Your task to perform on an android device: open app "Upside-Cash back on gas & food" (install if not already installed), go to login, and select forgot password Image 0: 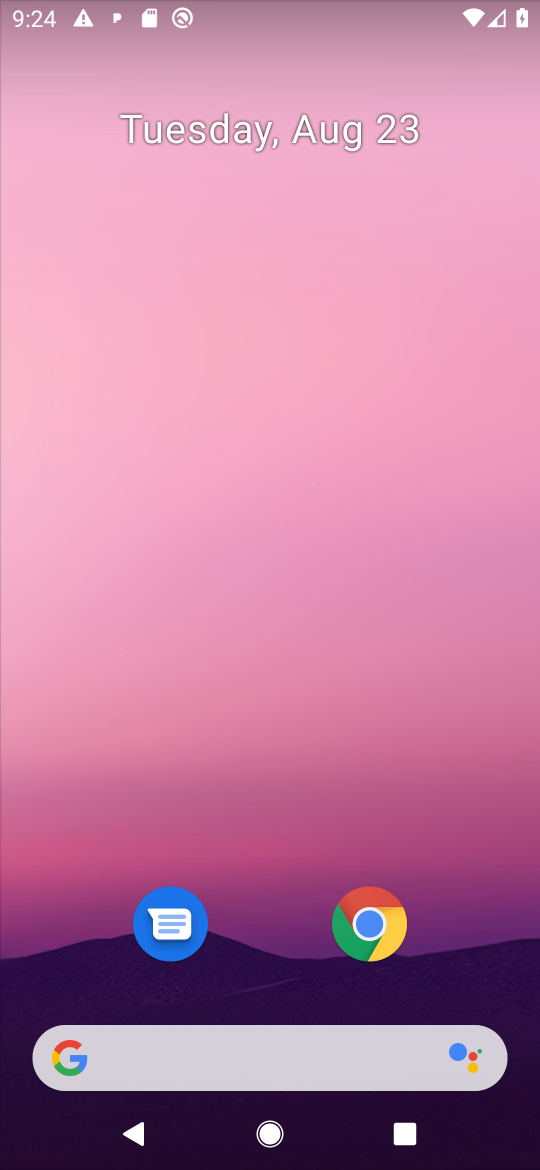
Step 0: press home button
Your task to perform on an android device: open app "Upside-Cash back on gas & food" (install if not already installed), go to login, and select forgot password Image 1: 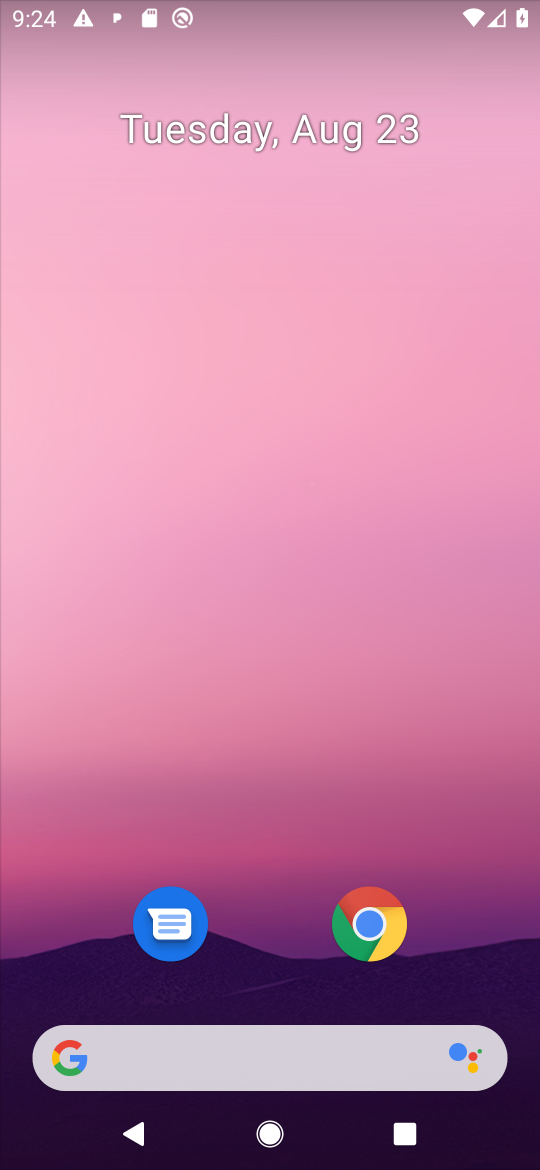
Step 1: drag from (488, 932) to (461, 114)
Your task to perform on an android device: open app "Upside-Cash back on gas & food" (install if not already installed), go to login, and select forgot password Image 2: 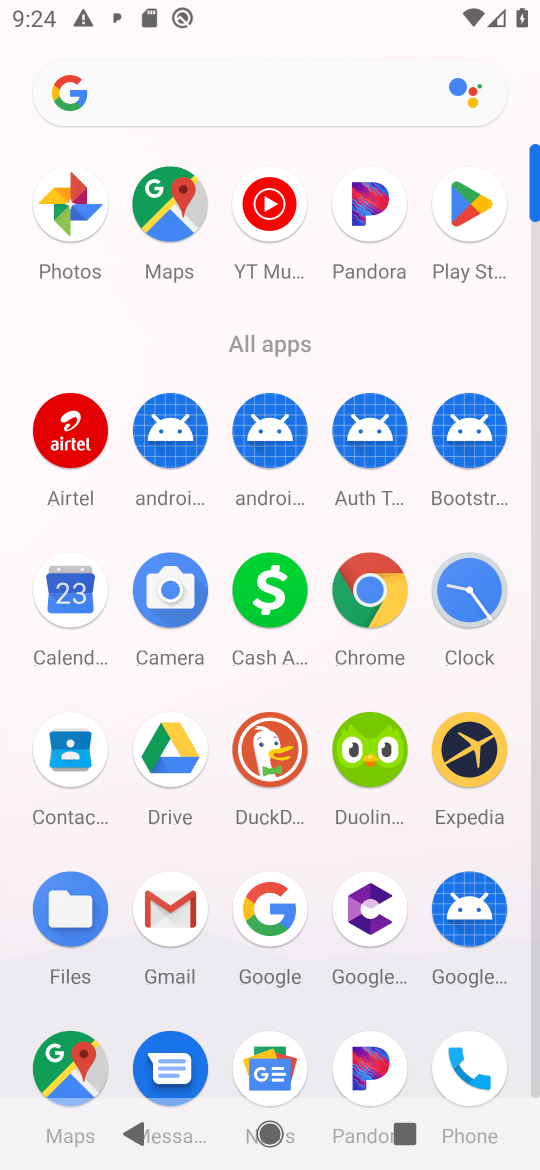
Step 2: click (461, 204)
Your task to perform on an android device: open app "Upside-Cash back on gas & food" (install if not already installed), go to login, and select forgot password Image 3: 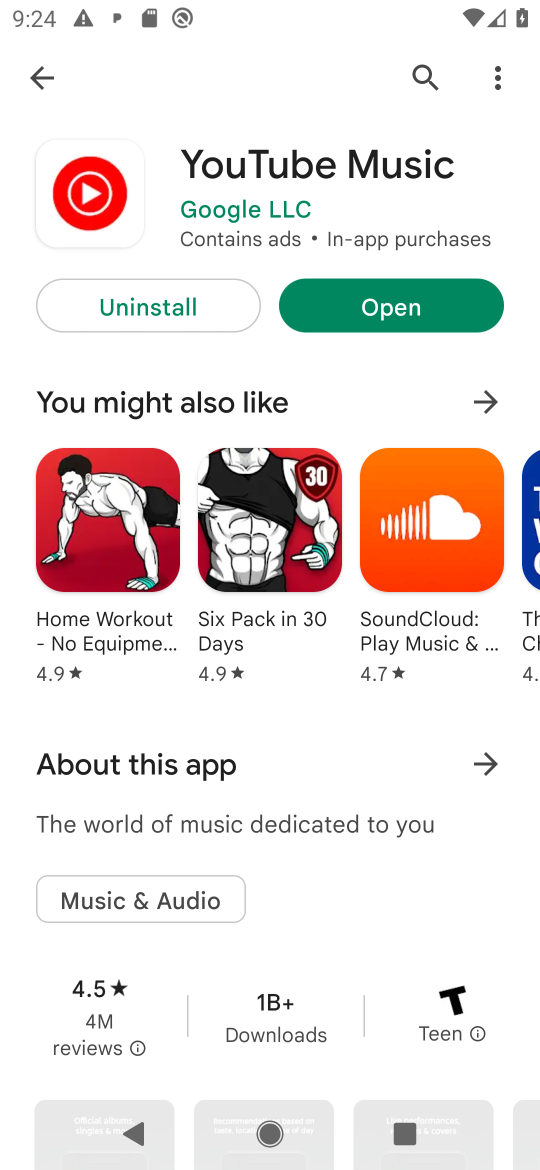
Step 3: press back button
Your task to perform on an android device: open app "Upside-Cash back on gas & food" (install if not already installed), go to login, and select forgot password Image 4: 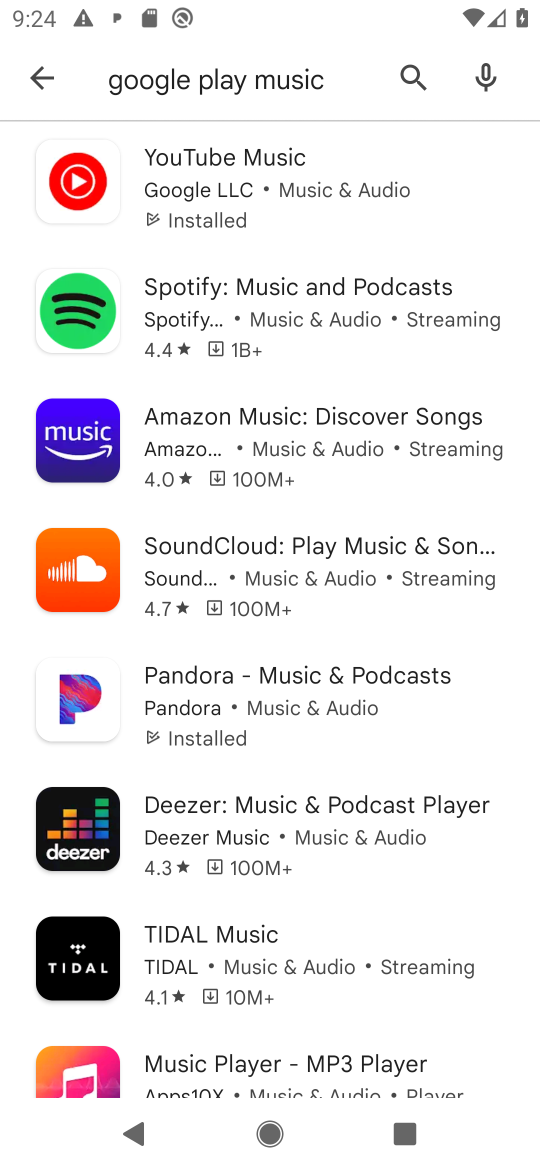
Step 4: press back button
Your task to perform on an android device: open app "Upside-Cash back on gas & food" (install if not already installed), go to login, and select forgot password Image 5: 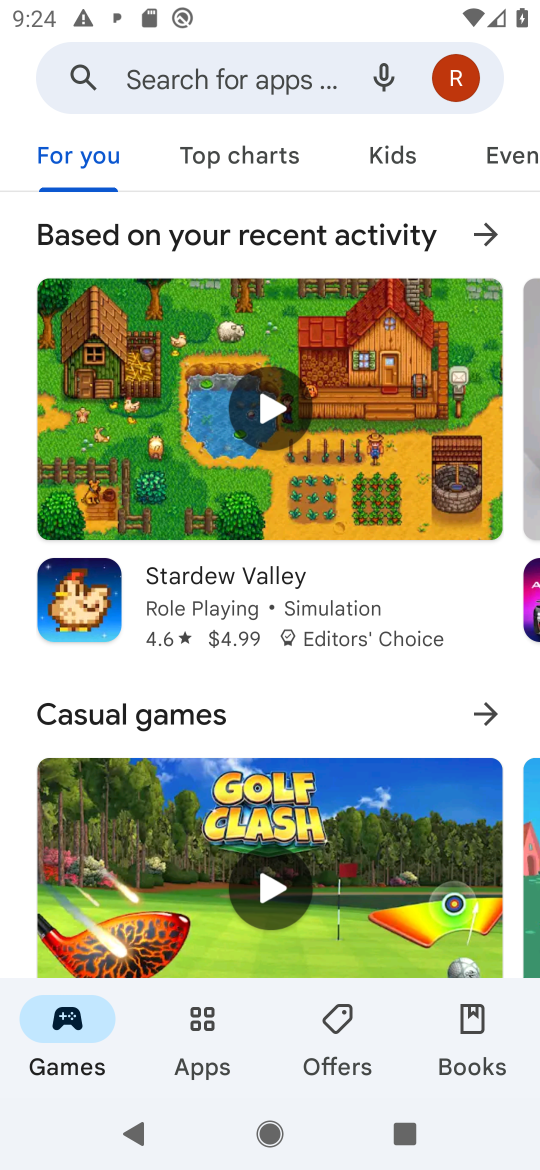
Step 5: click (265, 79)
Your task to perform on an android device: open app "Upside-Cash back on gas & food" (install if not already installed), go to login, and select forgot password Image 6: 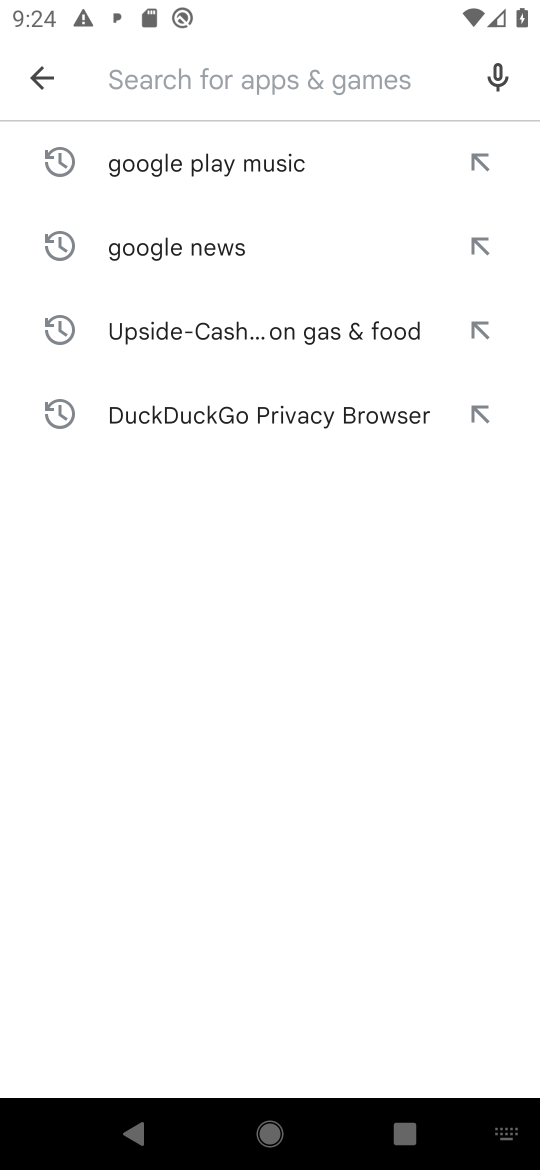
Step 6: type "Upside-Cash back on gas & food"
Your task to perform on an android device: open app "Upside-Cash back on gas & food" (install if not already installed), go to login, and select forgot password Image 7: 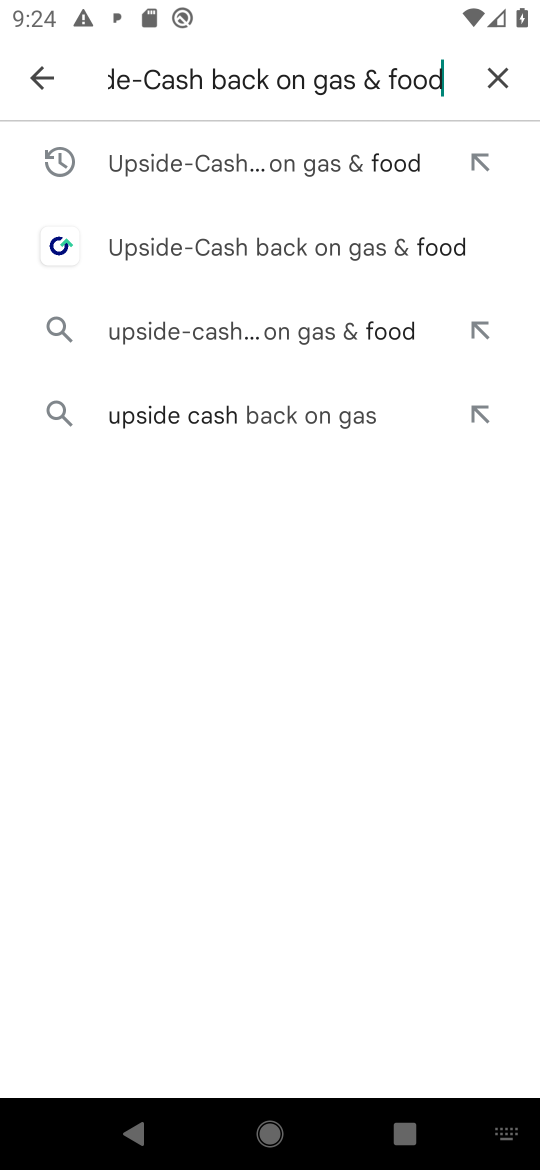
Step 7: press enter
Your task to perform on an android device: open app "Upside-Cash back on gas & food" (install if not already installed), go to login, and select forgot password Image 8: 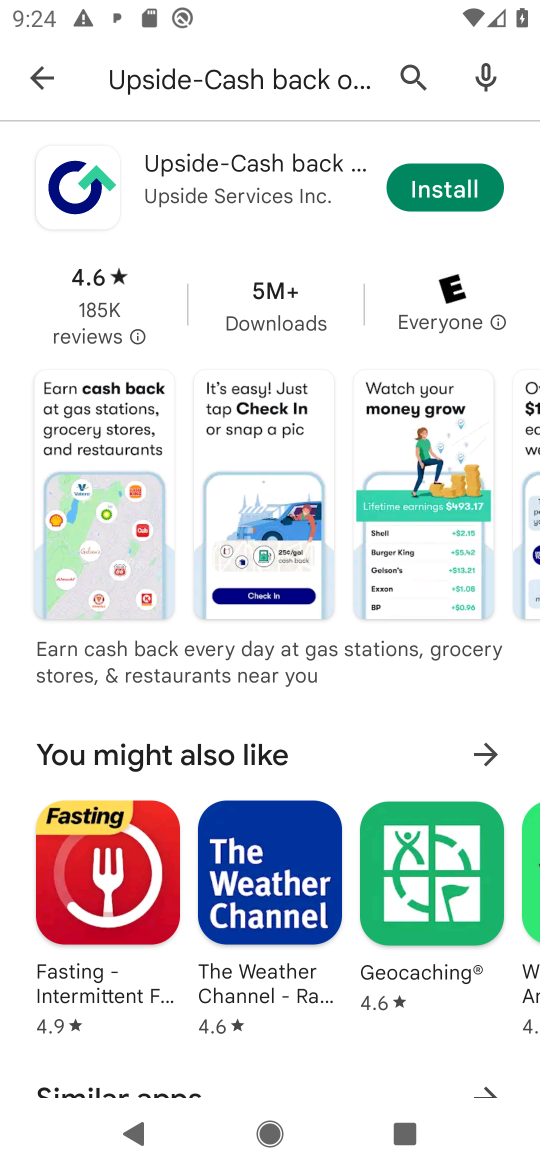
Step 8: click (435, 185)
Your task to perform on an android device: open app "Upside-Cash back on gas & food" (install if not already installed), go to login, and select forgot password Image 9: 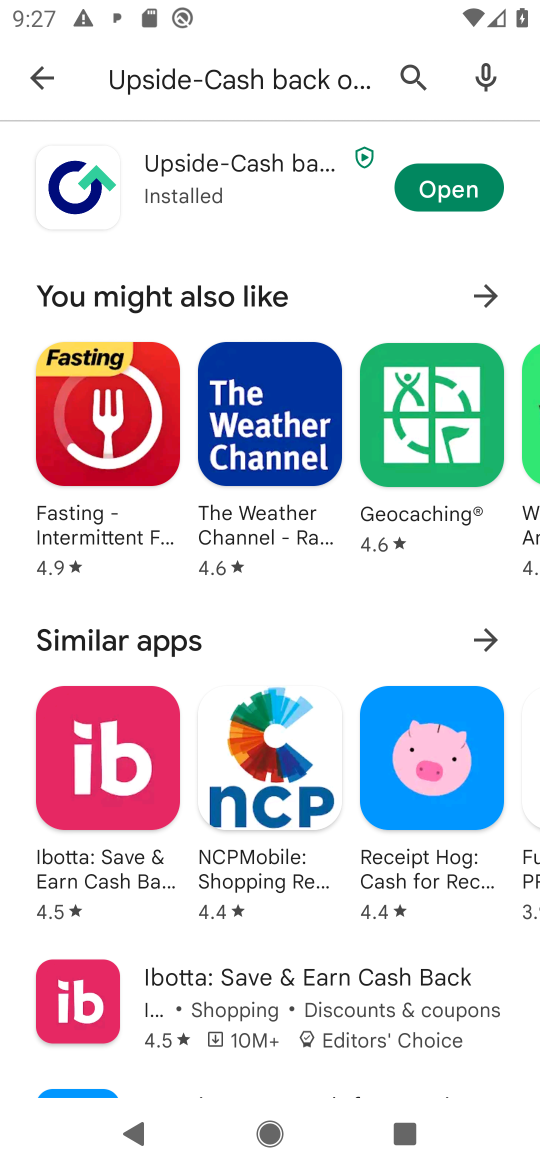
Step 9: click (448, 186)
Your task to perform on an android device: open app "Upside-Cash back on gas & food" (install if not already installed), go to login, and select forgot password Image 10: 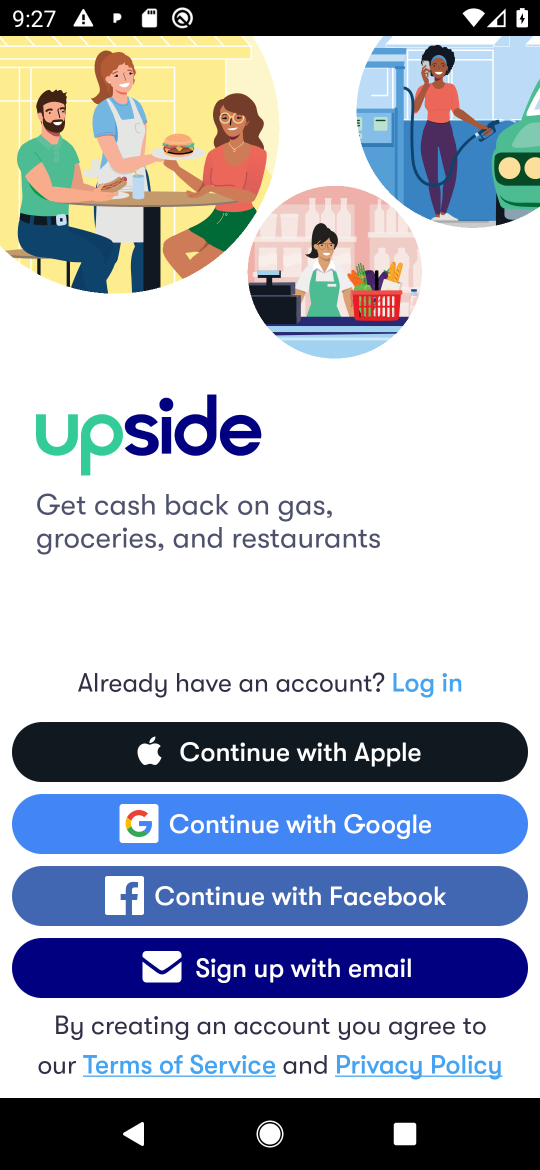
Step 10: click (442, 676)
Your task to perform on an android device: open app "Upside-Cash back on gas & food" (install if not already installed), go to login, and select forgot password Image 11: 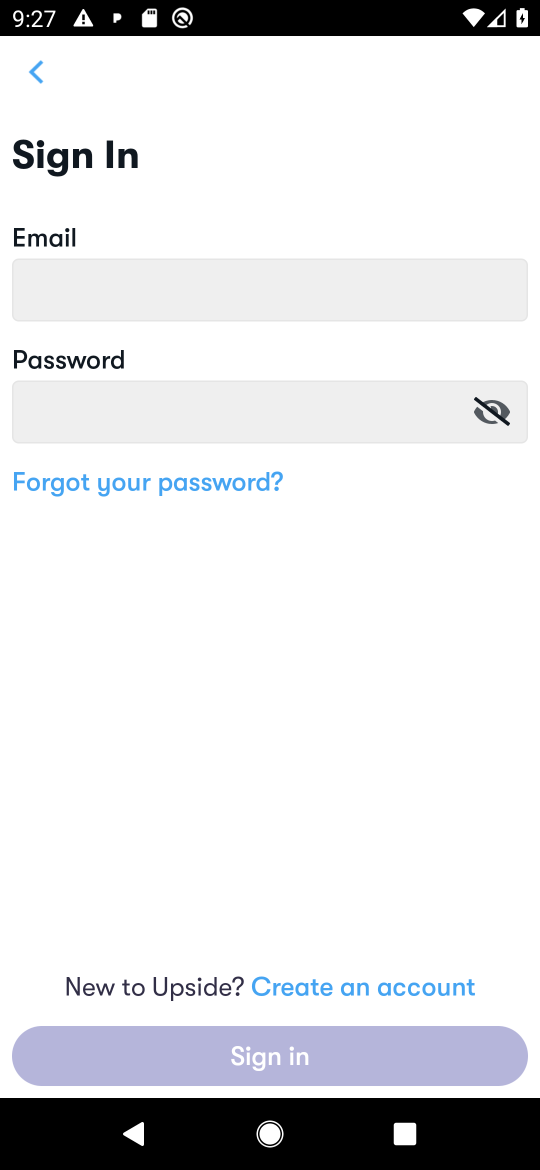
Step 11: click (157, 487)
Your task to perform on an android device: open app "Upside-Cash back on gas & food" (install if not already installed), go to login, and select forgot password Image 12: 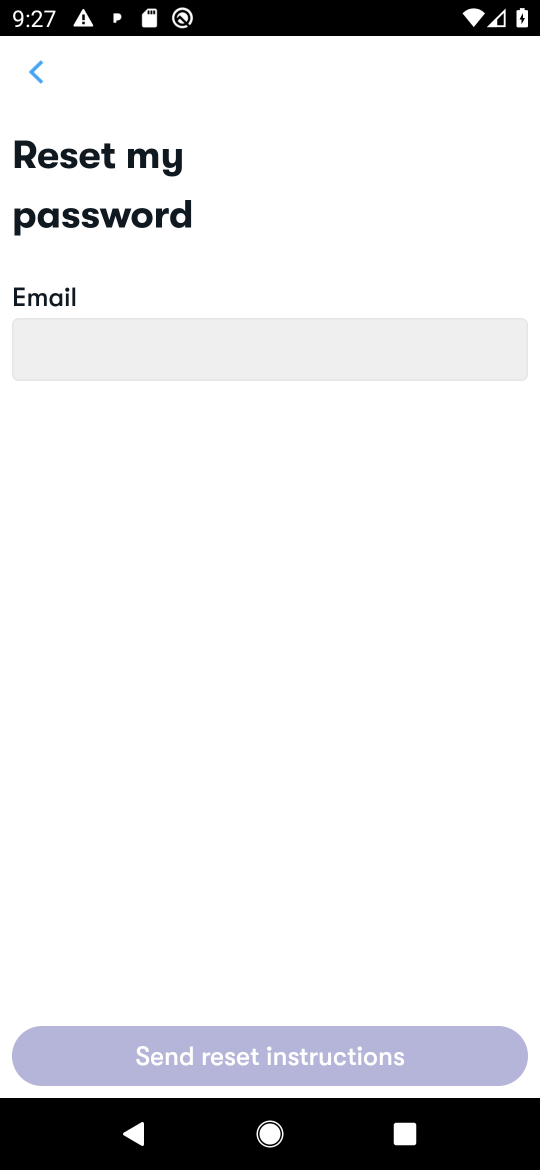
Step 12: task complete